Your task to perform on an android device: Go to wifi settings Image 0: 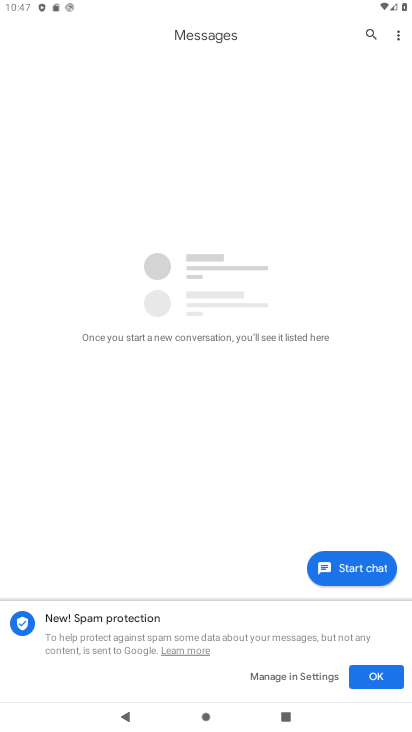
Step 0: press home button
Your task to perform on an android device: Go to wifi settings Image 1: 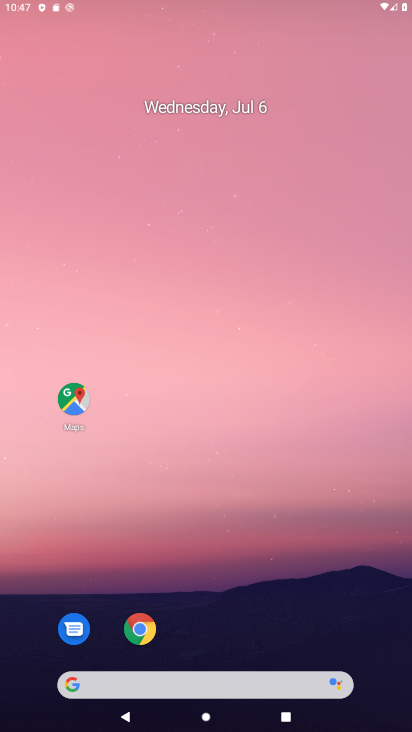
Step 1: drag from (205, 631) to (211, 104)
Your task to perform on an android device: Go to wifi settings Image 2: 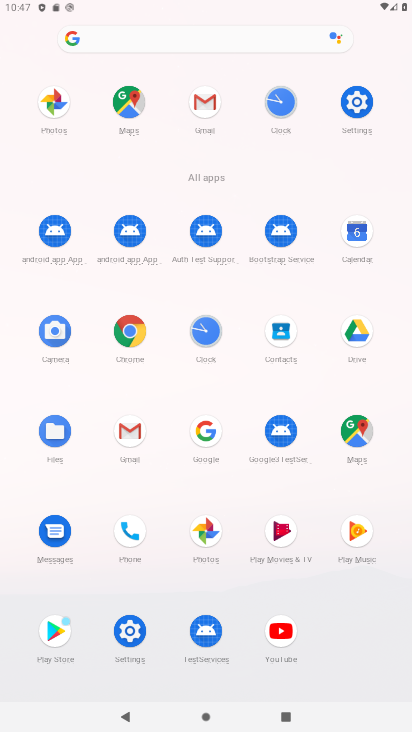
Step 2: click (354, 98)
Your task to perform on an android device: Go to wifi settings Image 3: 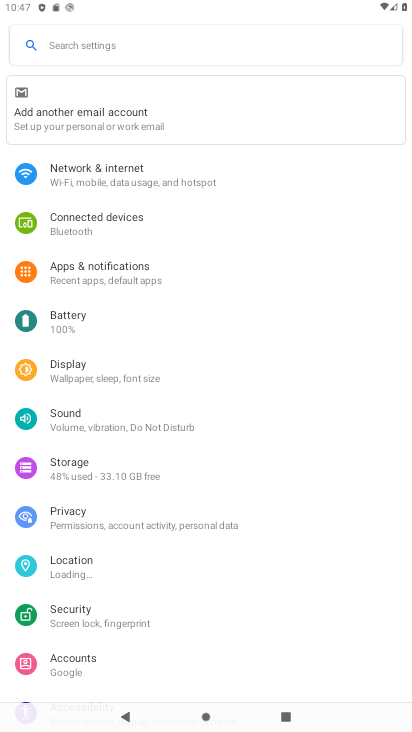
Step 3: click (109, 176)
Your task to perform on an android device: Go to wifi settings Image 4: 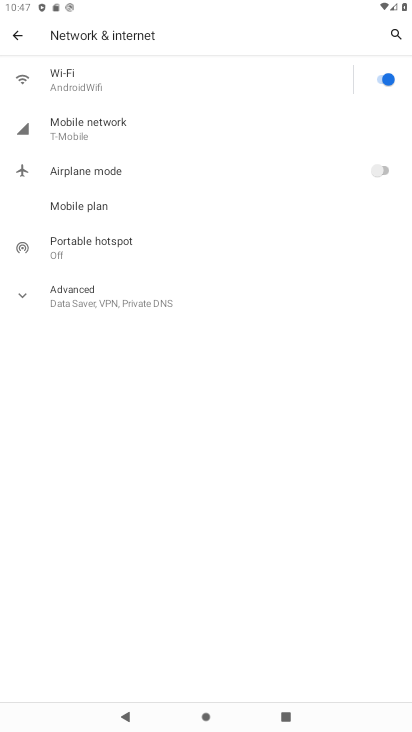
Step 4: click (180, 74)
Your task to perform on an android device: Go to wifi settings Image 5: 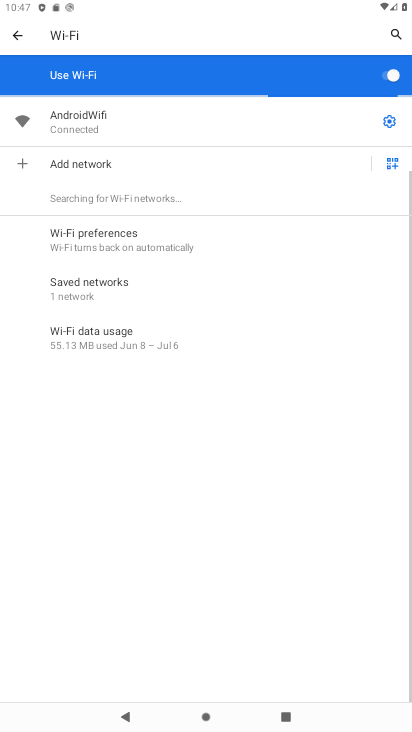
Step 5: click (396, 121)
Your task to perform on an android device: Go to wifi settings Image 6: 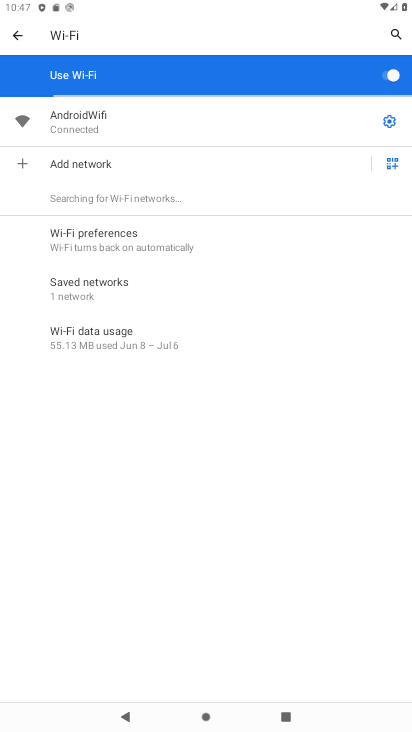
Step 6: click (391, 118)
Your task to perform on an android device: Go to wifi settings Image 7: 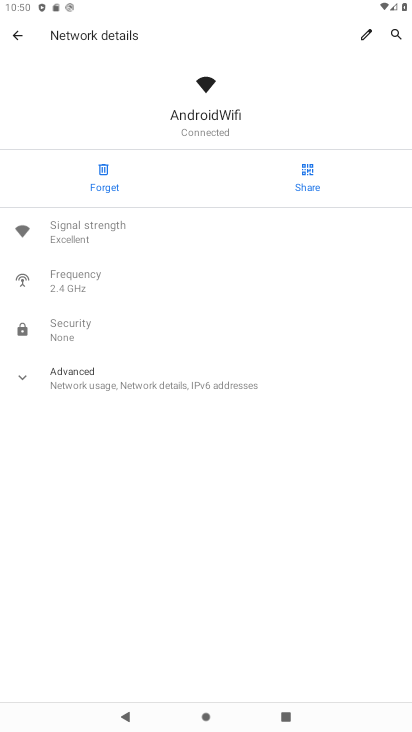
Step 7: task complete